Your task to perform on an android device: Is it going to rain tomorrow? Image 0: 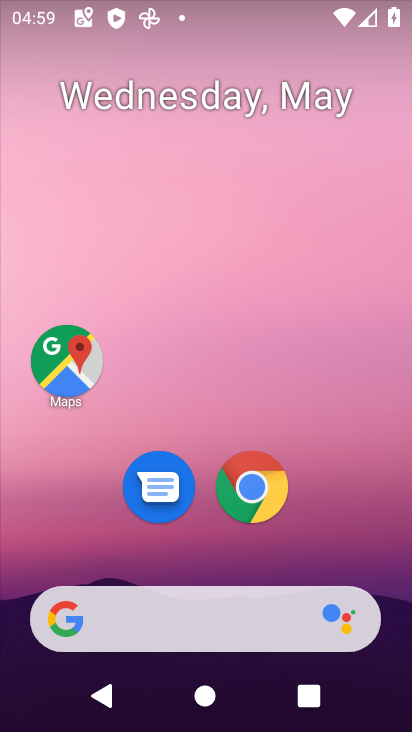
Step 0: click (325, 535)
Your task to perform on an android device: Is it going to rain tomorrow? Image 1: 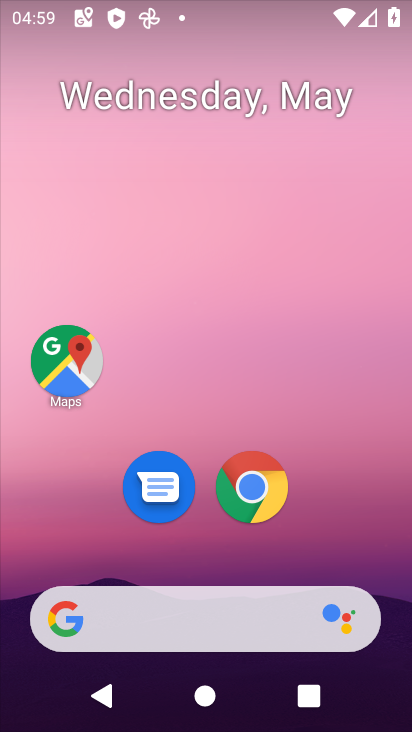
Step 1: click (220, 610)
Your task to perform on an android device: Is it going to rain tomorrow? Image 2: 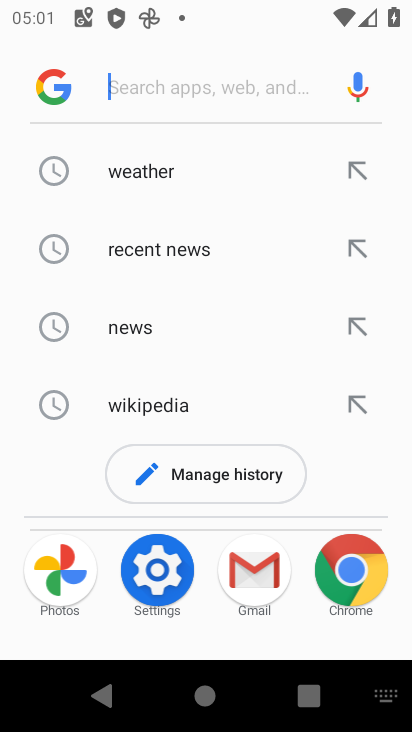
Step 2: click (155, 183)
Your task to perform on an android device: Is it going to rain tomorrow? Image 3: 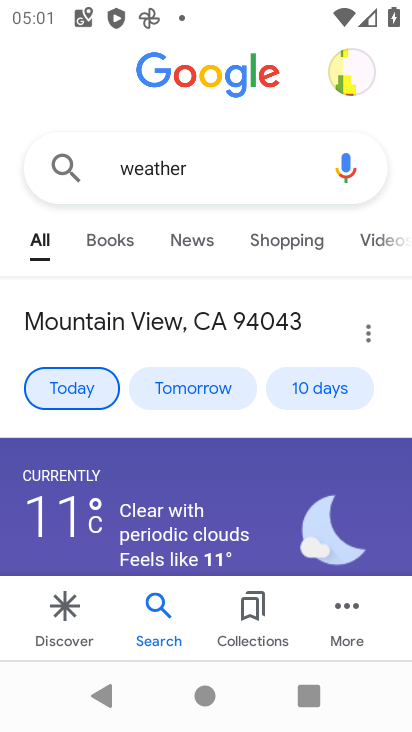
Step 3: drag from (197, 397) to (160, 397)
Your task to perform on an android device: Is it going to rain tomorrow? Image 4: 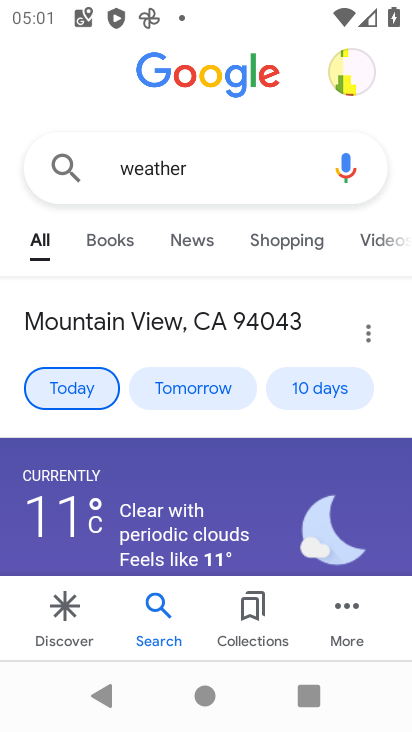
Step 4: click (204, 382)
Your task to perform on an android device: Is it going to rain tomorrow? Image 5: 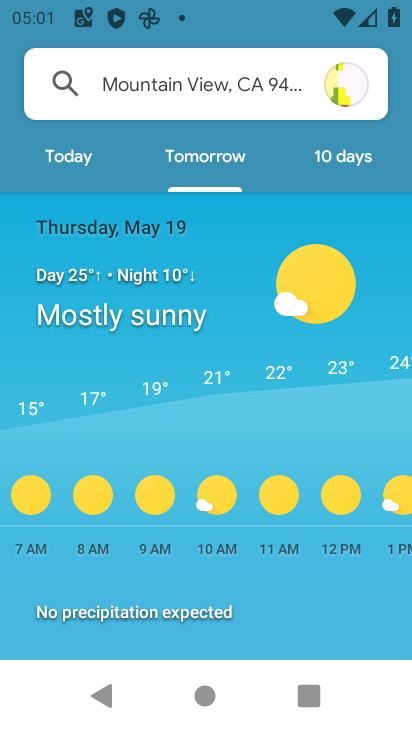
Step 5: task complete